Your task to perform on an android device: Open Maps and search for coffee Image 0: 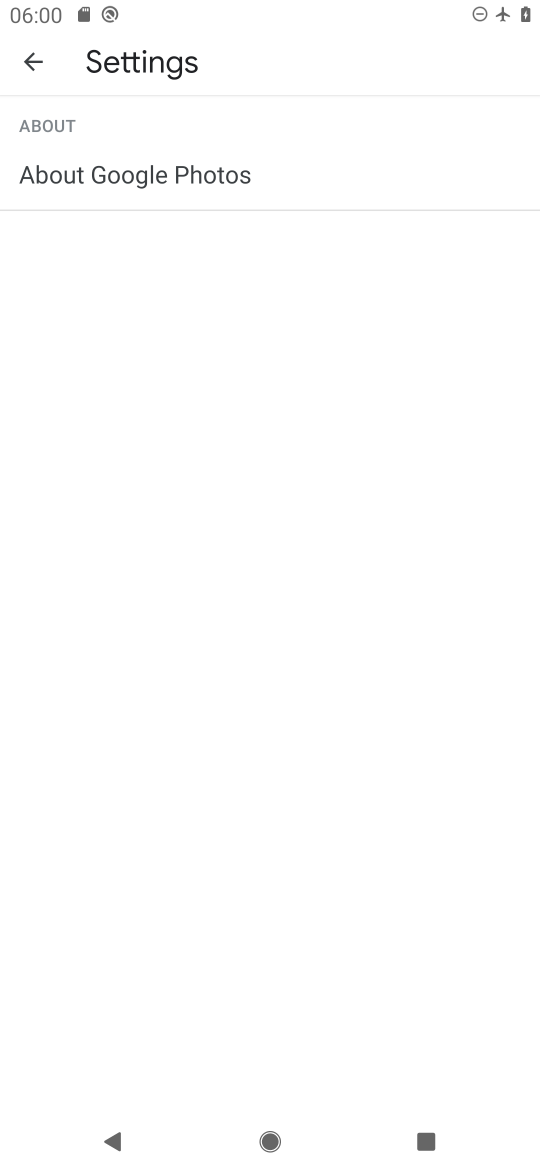
Step 0: press home button
Your task to perform on an android device: Open Maps and search for coffee Image 1: 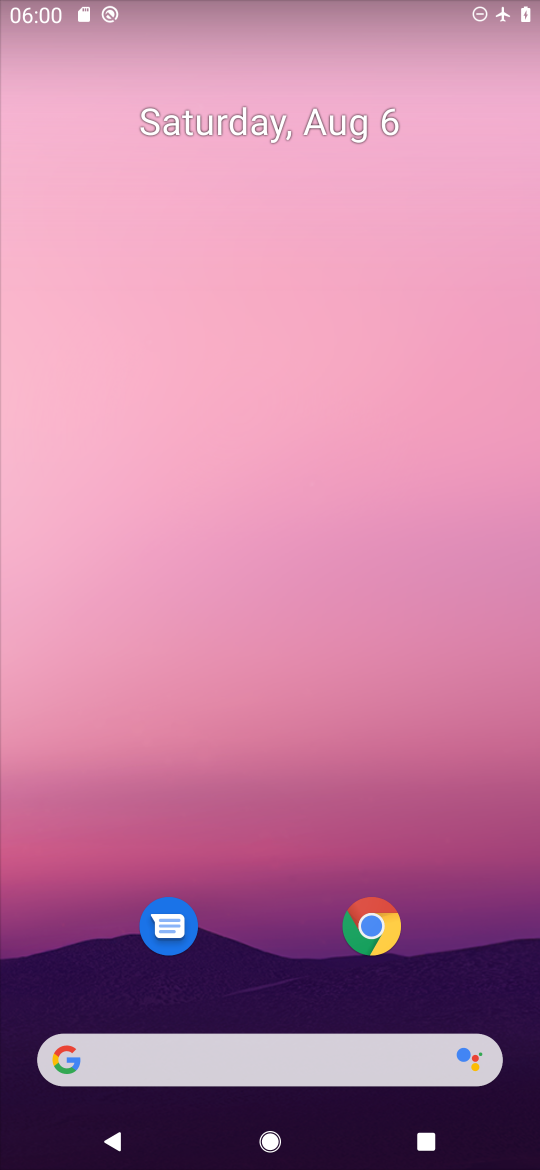
Step 1: drag from (297, 880) to (296, 220)
Your task to perform on an android device: Open Maps and search for coffee Image 2: 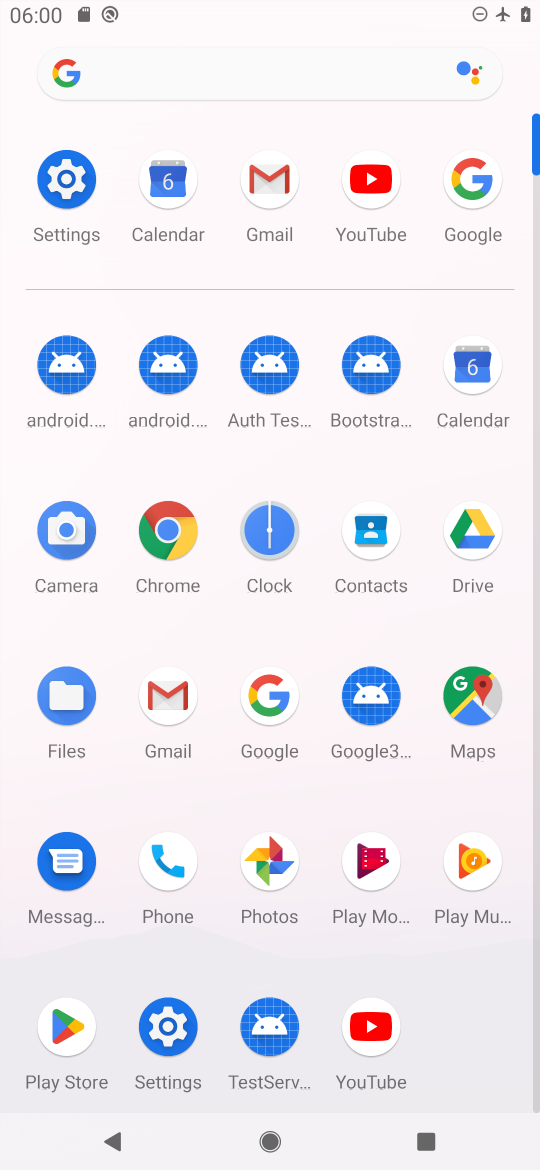
Step 2: click (460, 725)
Your task to perform on an android device: Open Maps and search for coffee Image 3: 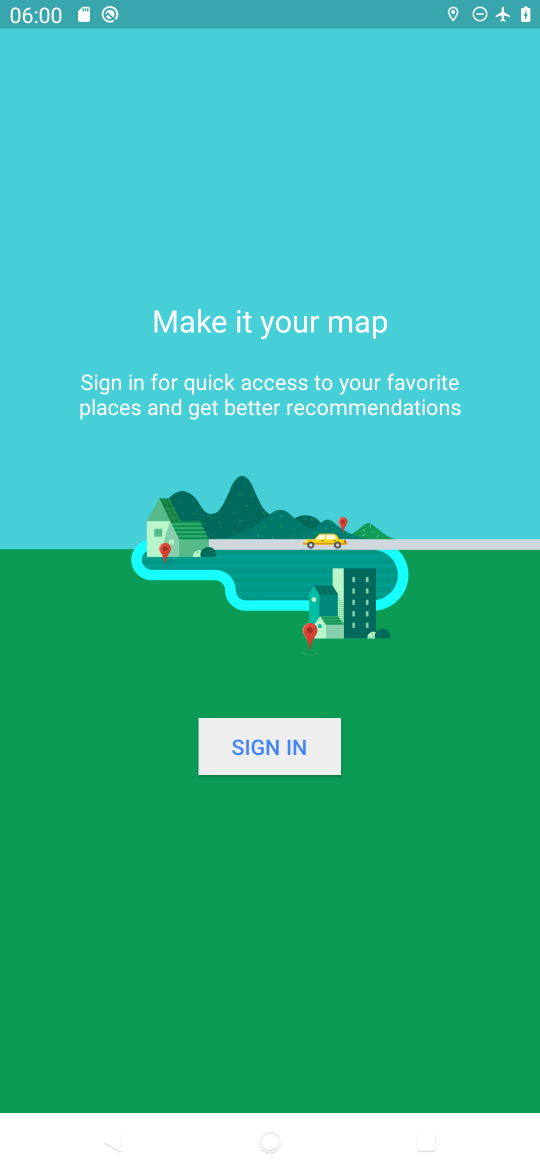
Step 3: task complete